Your task to perform on an android device: What's the weather going to be this weekend? Image 0: 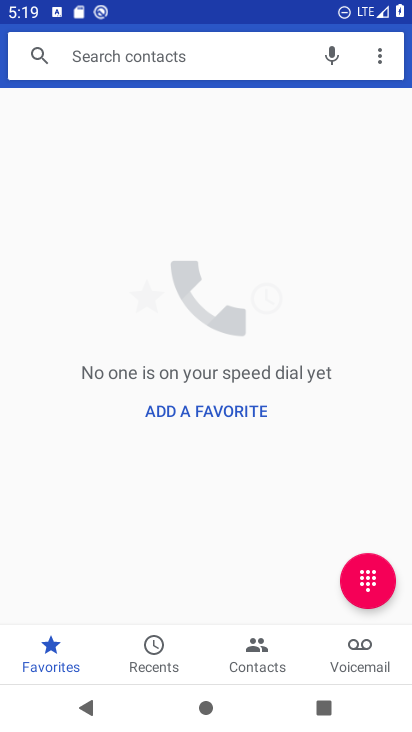
Step 0: press home button
Your task to perform on an android device: What's the weather going to be this weekend? Image 1: 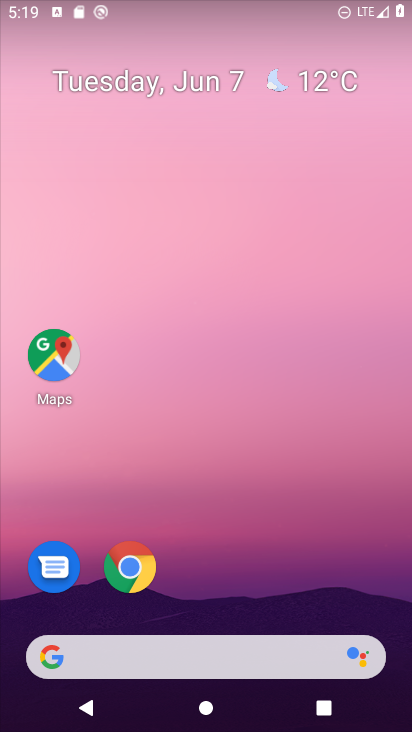
Step 1: drag from (246, 623) to (294, 130)
Your task to perform on an android device: What's the weather going to be this weekend? Image 2: 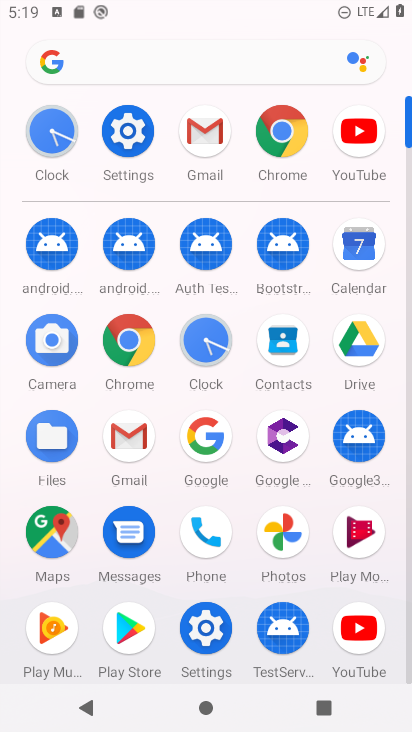
Step 2: press home button
Your task to perform on an android device: What's the weather going to be this weekend? Image 3: 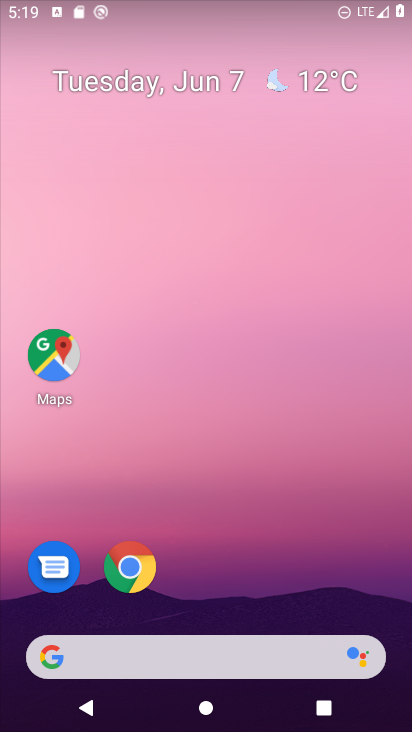
Step 3: drag from (37, 251) to (371, 214)
Your task to perform on an android device: What's the weather going to be this weekend? Image 4: 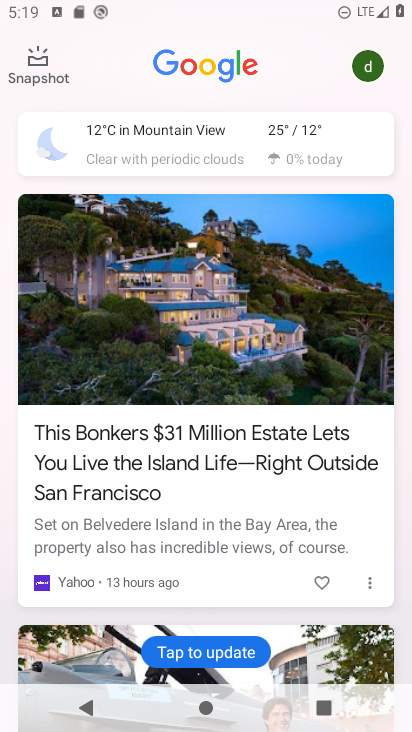
Step 4: click (256, 152)
Your task to perform on an android device: What's the weather going to be this weekend? Image 5: 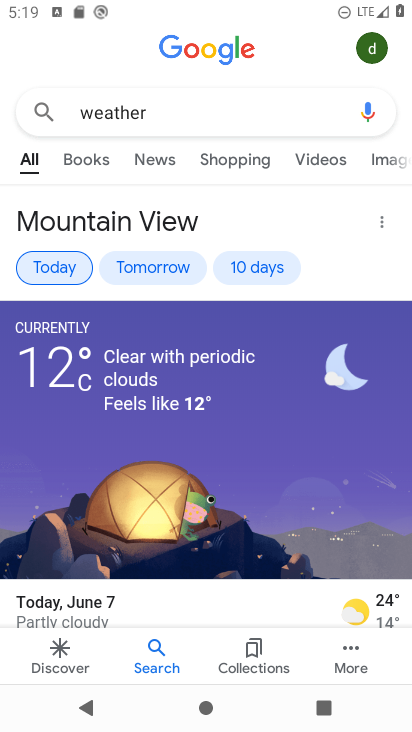
Step 5: click (260, 271)
Your task to perform on an android device: What's the weather going to be this weekend? Image 6: 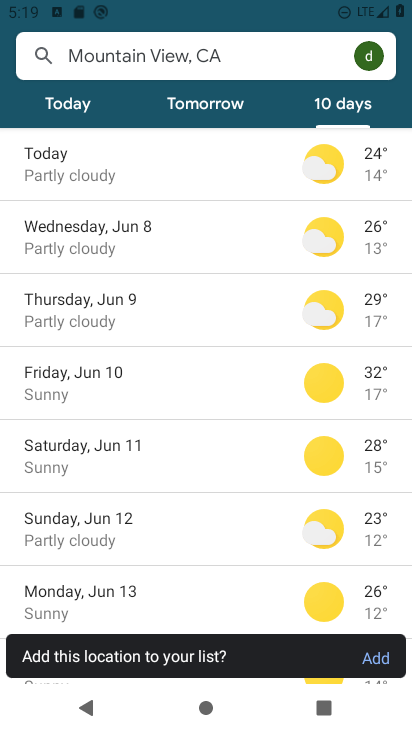
Step 6: task complete